Your task to perform on an android device: set the timer Image 0: 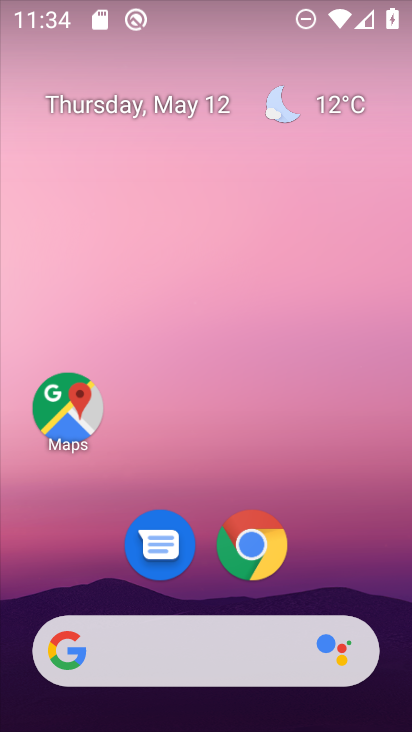
Step 0: drag from (206, 578) to (235, 93)
Your task to perform on an android device: set the timer Image 1: 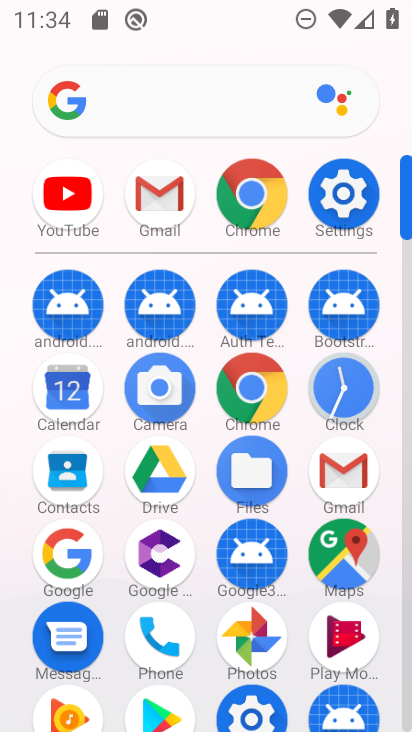
Step 1: click (342, 378)
Your task to perform on an android device: set the timer Image 2: 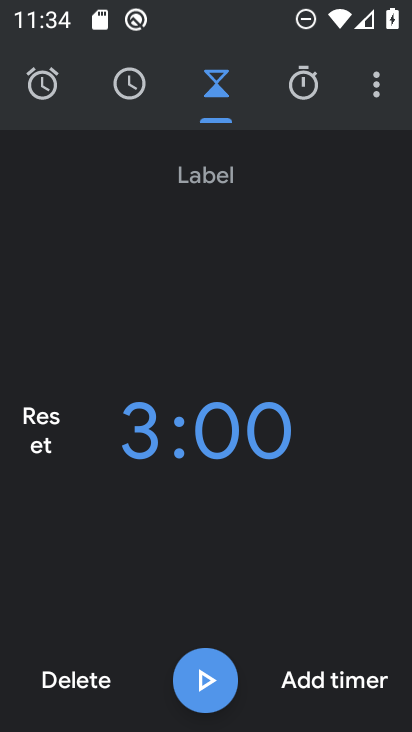
Step 2: click (35, 431)
Your task to perform on an android device: set the timer Image 3: 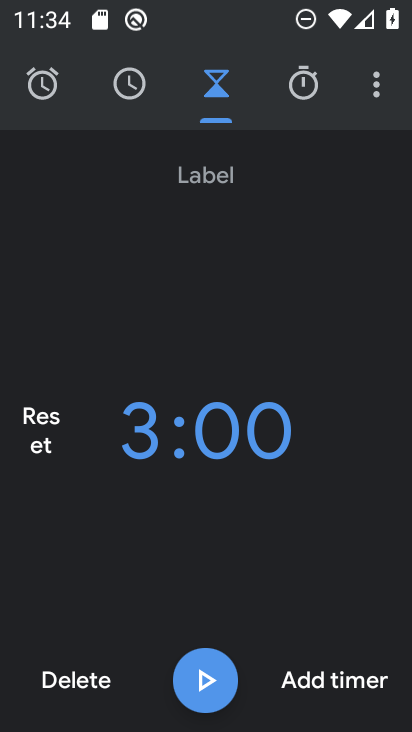
Step 3: click (76, 678)
Your task to perform on an android device: set the timer Image 4: 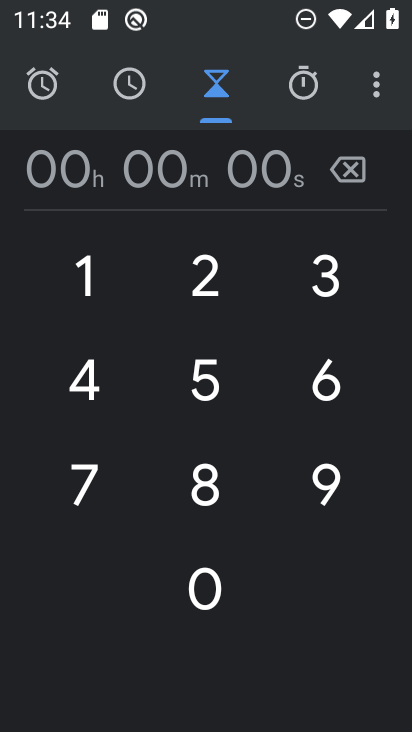
Step 4: click (211, 270)
Your task to perform on an android device: set the timer Image 5: 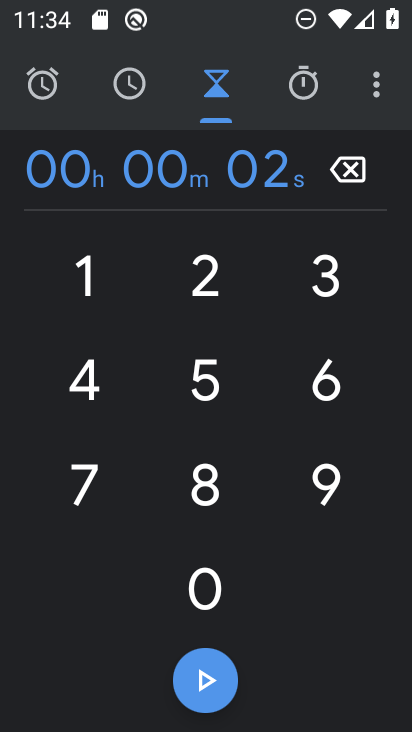
Step 5: click (203, 590)
Your task to perform on an android device: set the timer Image 6: 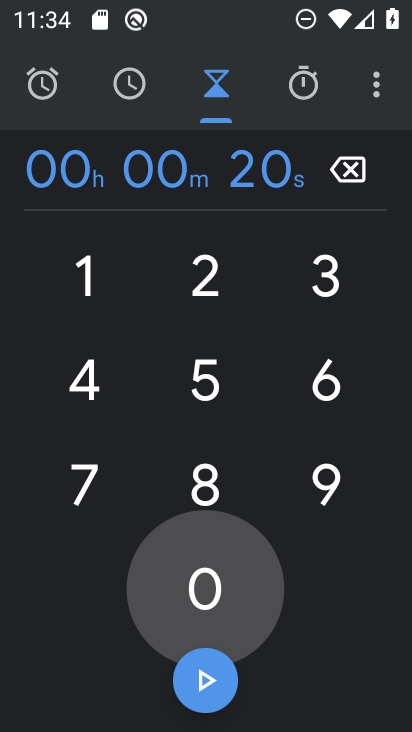
Step 6: click (203, 590)
Your task to perform on an android device: set the timer Image 7: 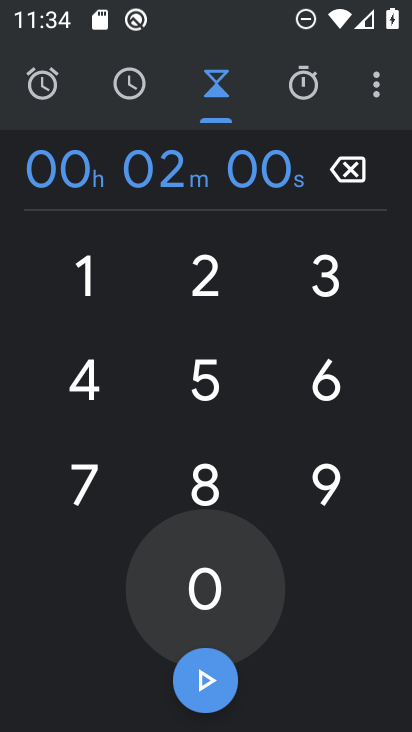
Step 7: click (203, 590)
Your task to perform on an android device: set the timer Image 8: 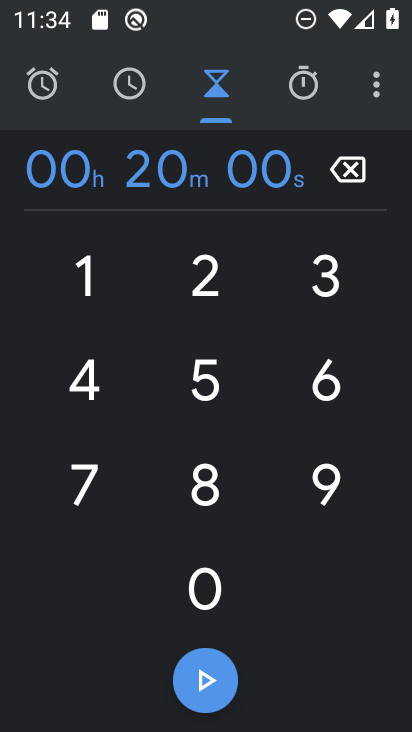
Step 8: click (203, 590)
Your task to perform on an android device: set the timer Image 9: 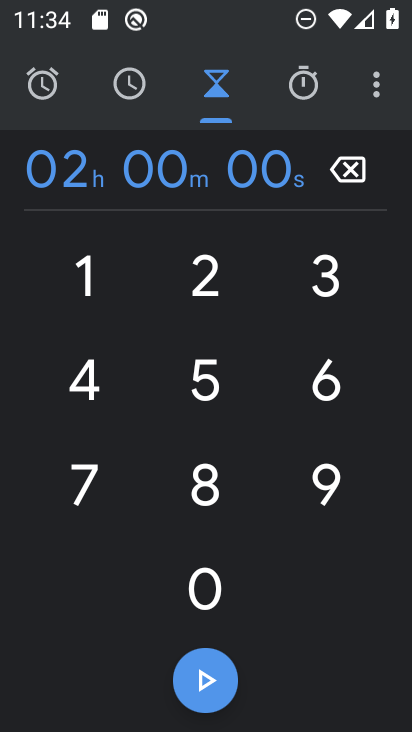
Step 9: click (209, 677)
Your task to perform on an android device: set the timer Image 10: 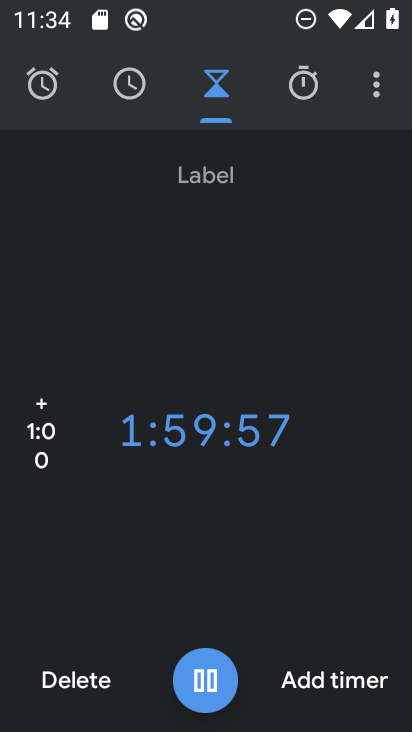
Step 10: task complete